Your task to perform on an android device: check google app version Image 0: 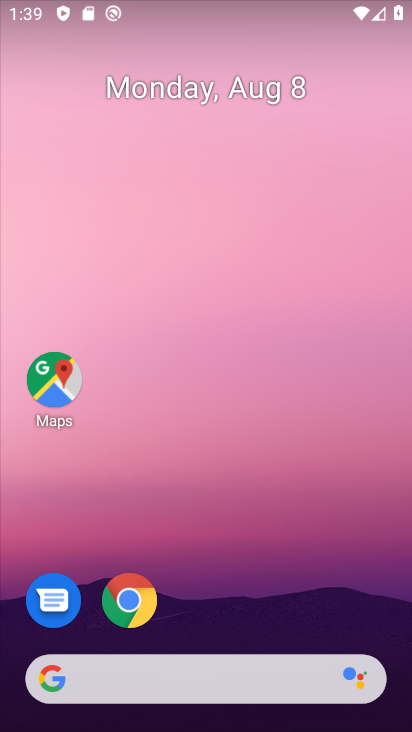
Step 0: drag from (339, 516) to (281, 27)
Your task to perform on an android device: check google app version Image 1: 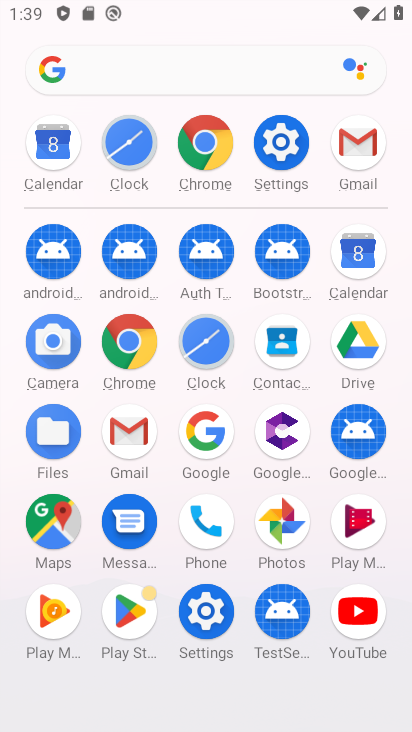
Step 1: click (200, 449)
Your task to perform on an android device: check google app version Image 2: 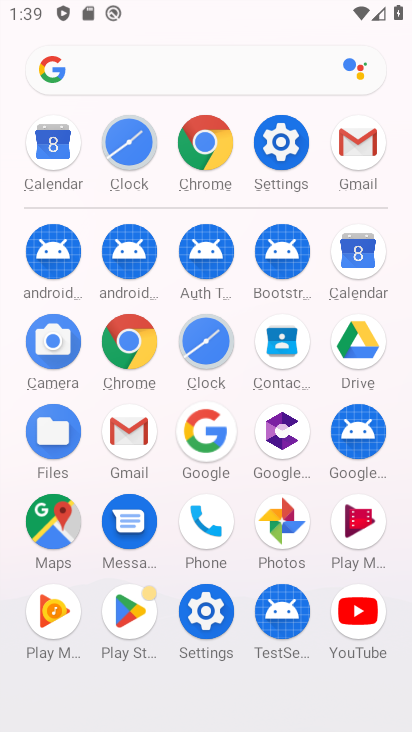
Step 2: click (200, 449)
Your task to perform on an android device: check google app version Image 3: 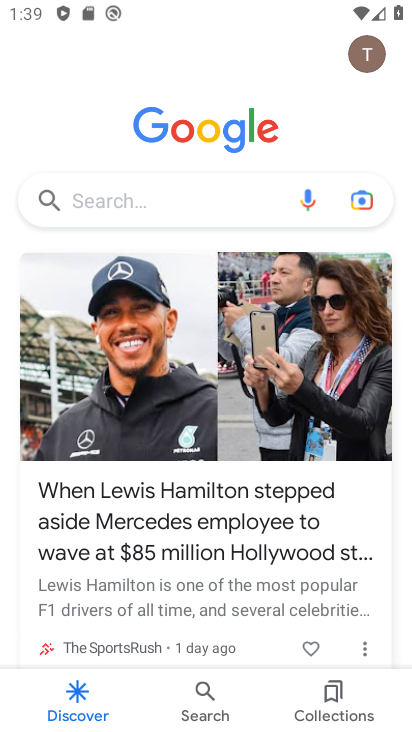
Step 3: press home button
Your task to perform on an android device: check google app version Image 4: 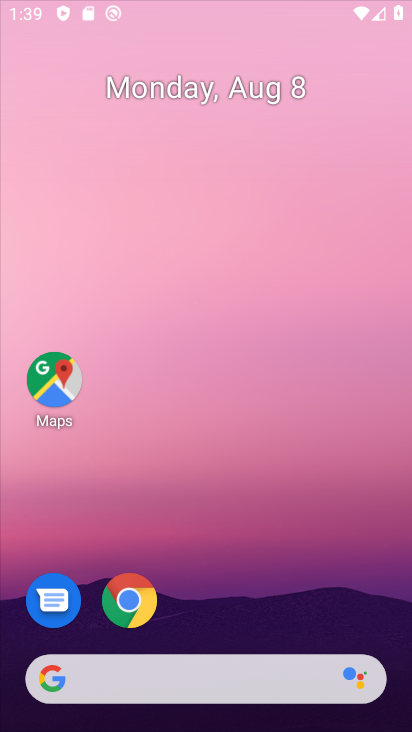
Step 4: drag from (344, 521) to (407, 0)
Your task to perform on an android device: check google app version Image 5: 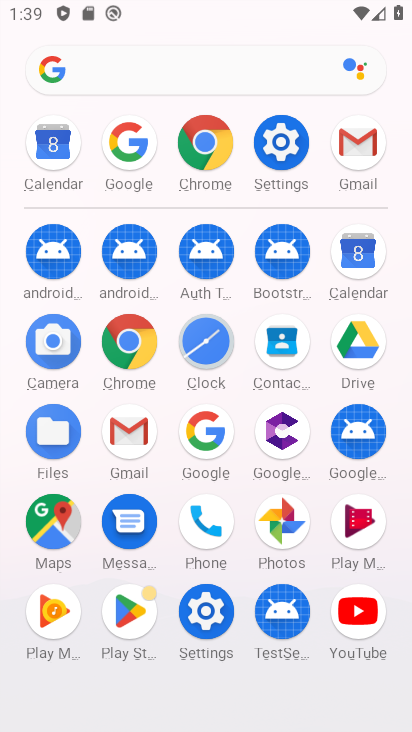
Step 5: click (223, 427)
Your task to perform on an android device: check google app version Image 6: 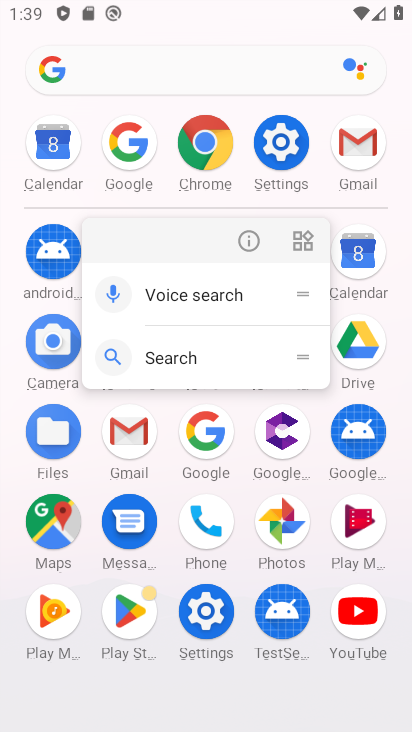
Step 6: click (242, 248)
Your task to perform on an android device: check google app version Image 7: 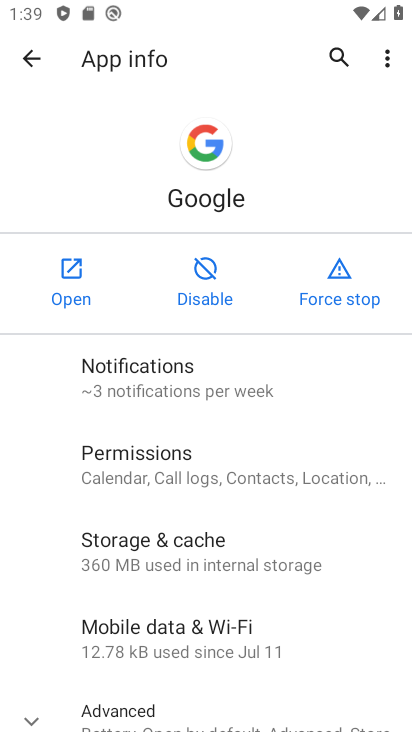
Step 7: drag from (107, 624) to (68, 45)
Your task to perform on an android device: check google app version Image 8: 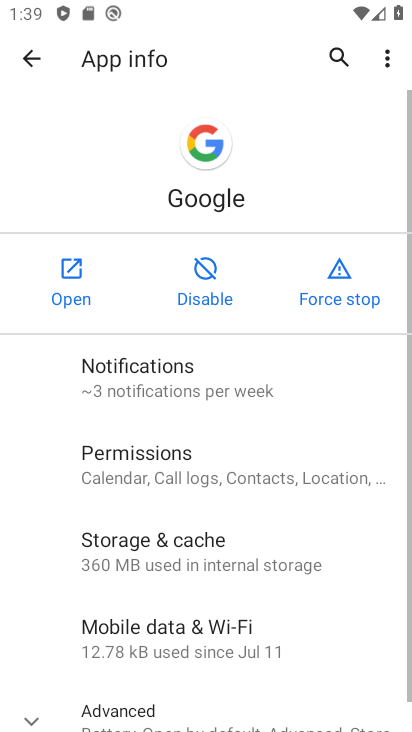
Step 8: click (126, 707)
Your task to perform on an android device: check google app version Image 9: 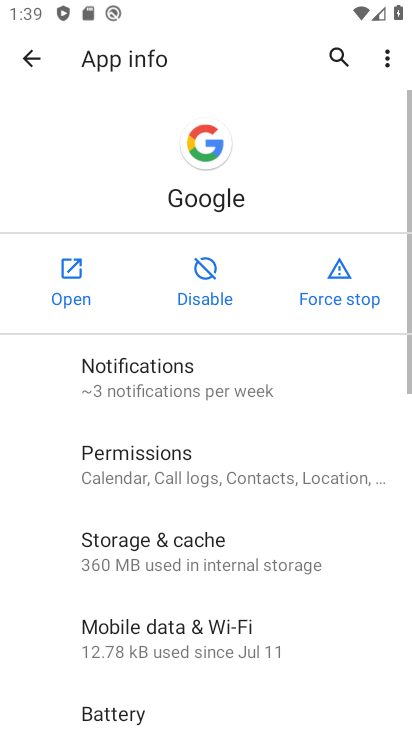
Step 9: drag from (187, 644) to (253, 302)
Your task to perform on an android device: check google app version Image 10: 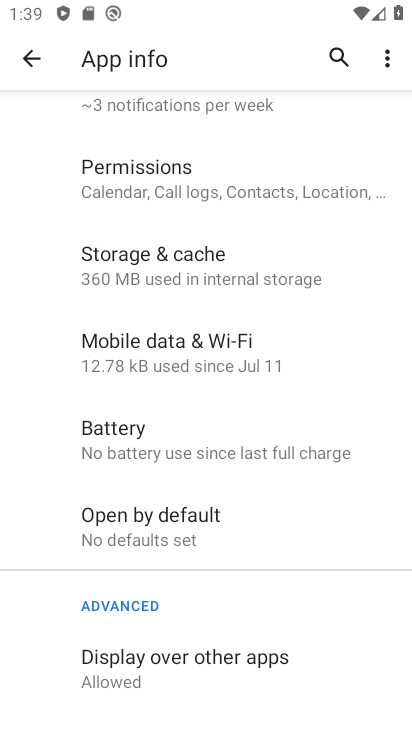
Step 10: drag from (256, 610) to (266, 94)
Your task to perform on an android device: check google app version Image 11: 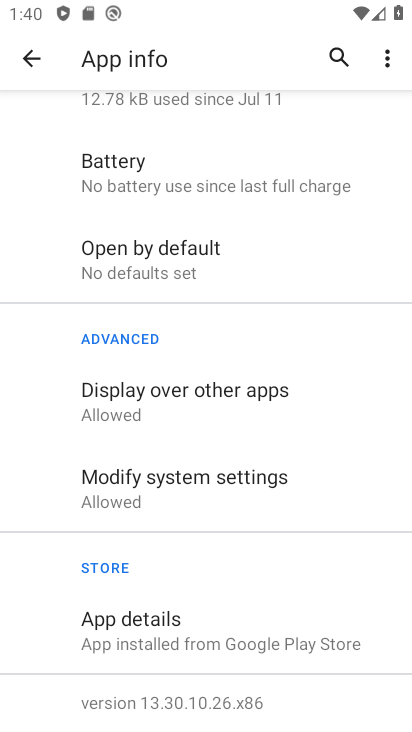
Step 11: press home button
Your task to perform on an android device: check google app version Image 12: 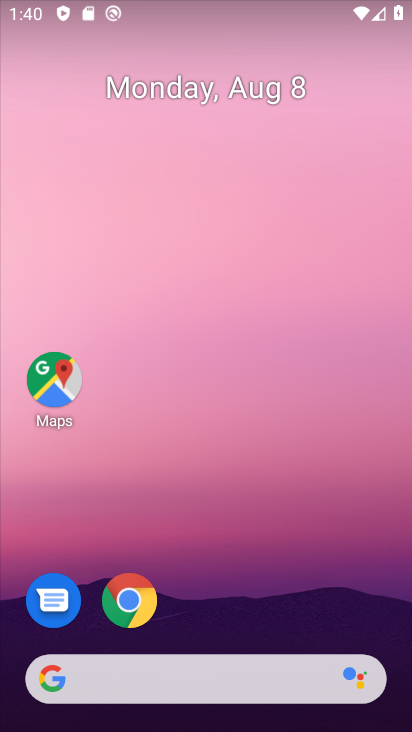
Step 12: drag from (288, 627) to (307, 61)
Your task to perform on an android device: check google app version Image 13: 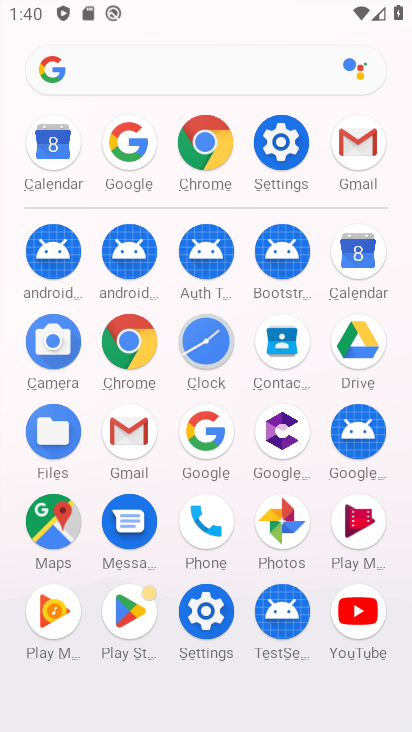
Step 13: click (188, 440)
Your task to perform on an android device: check google app version Image 14: 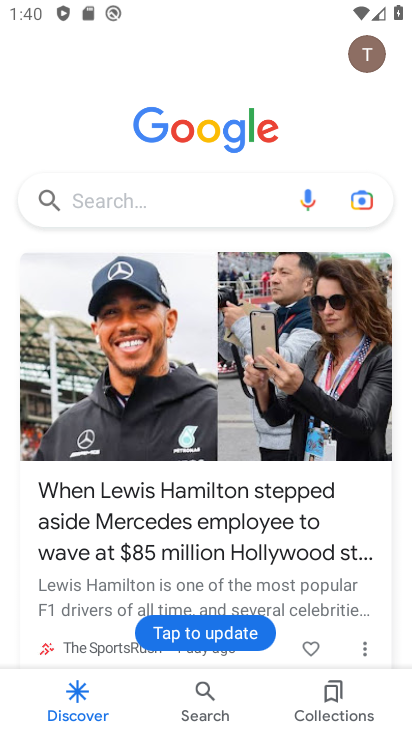
Step 14: press home button
Your task to perform on an android device: check google app version Image 15: 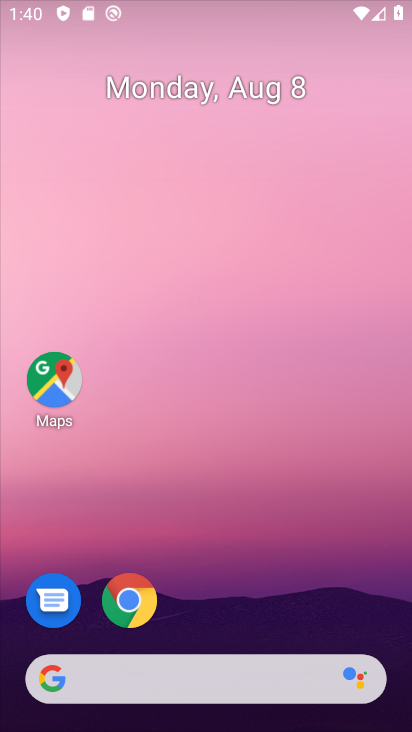
Step 15: drag from (363, 663) to (311, 63)
Your task to perform on an android device: check google app version Image 16: 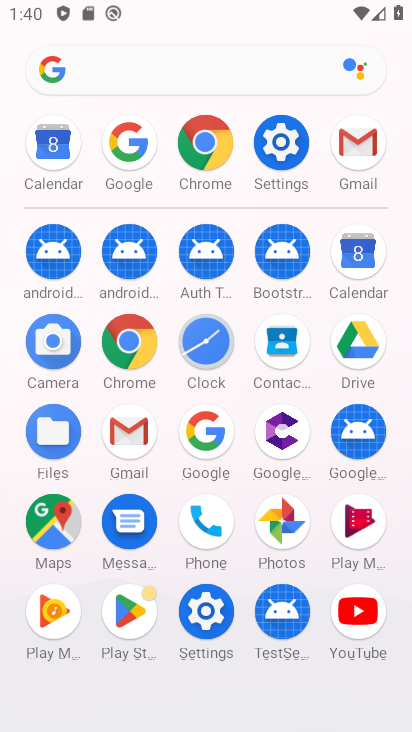
Step 16: click (216, 448)
Your task to perform on an android device: check google app version Image 17: 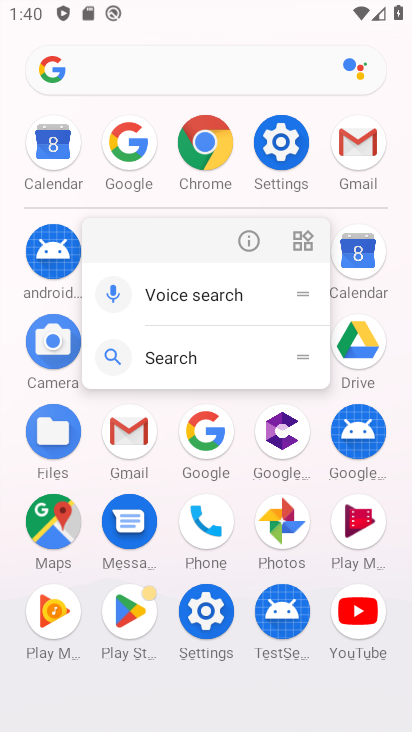
Step 17: click (252, 236)
Your task to perform on an android device: check google app version Image 18: 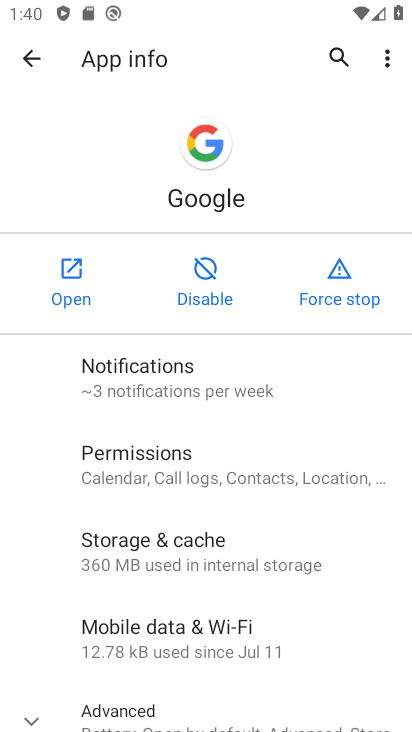
Step 18: drag from (179, 598) to (121, 8)
Your task to perform on an android device: check google app version Image 19: 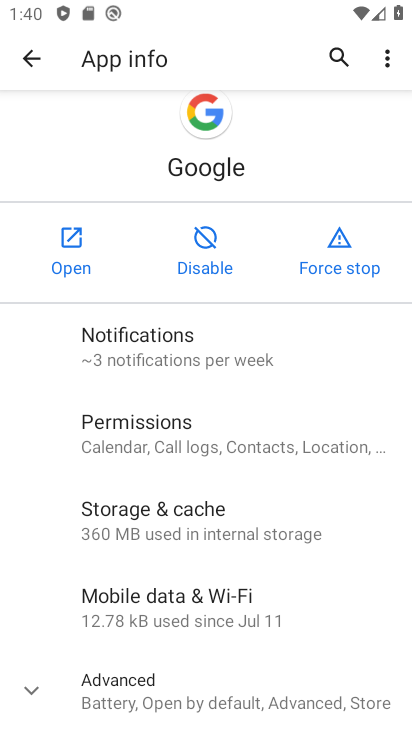
Step 19: click (146, 666)
Your task to perform on an android device: check google app version Image 20: 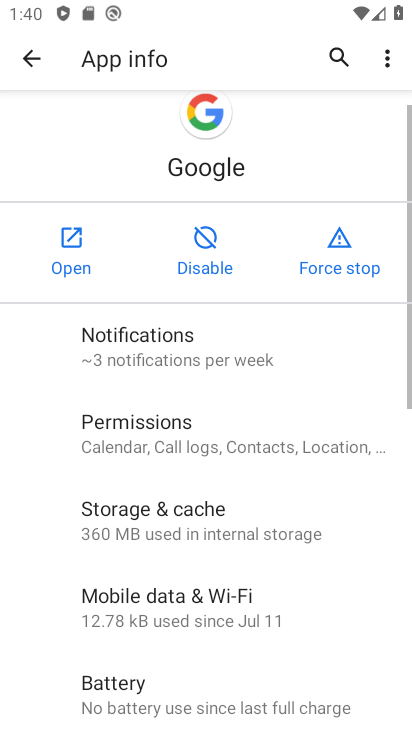
Step 20: task complete